Your task to perform on an android device: check the backup settings in the google photos Image 0: 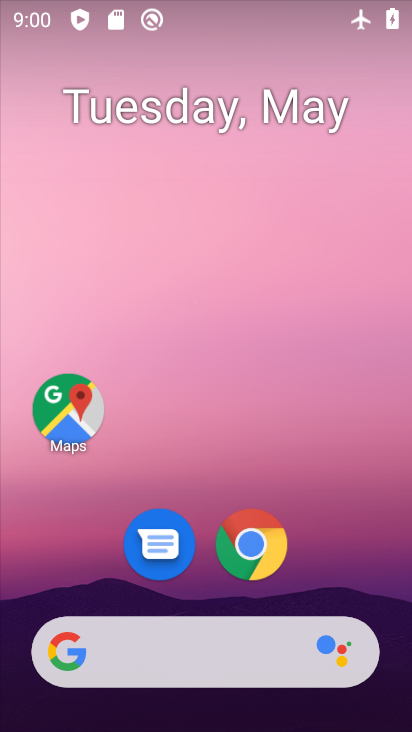
Step 0: drag from (350, 549) to (300, 85)
Your task to perform on an android device: check the backup settings in the google photos Image 1: 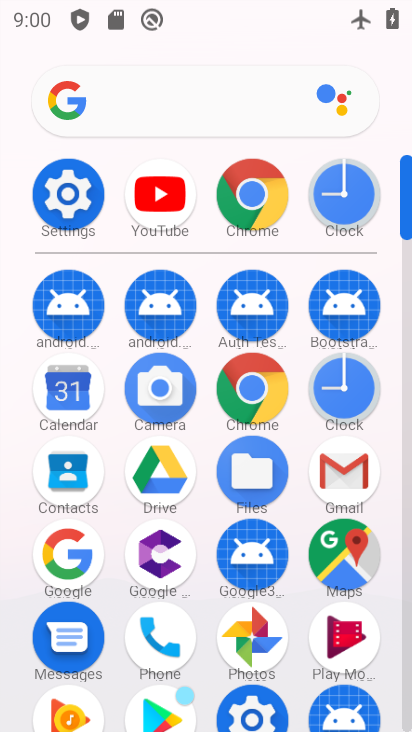
Step 1: click (266, 644)
Your task to perform on an android device: check the backup settings in the google photos Image 2: 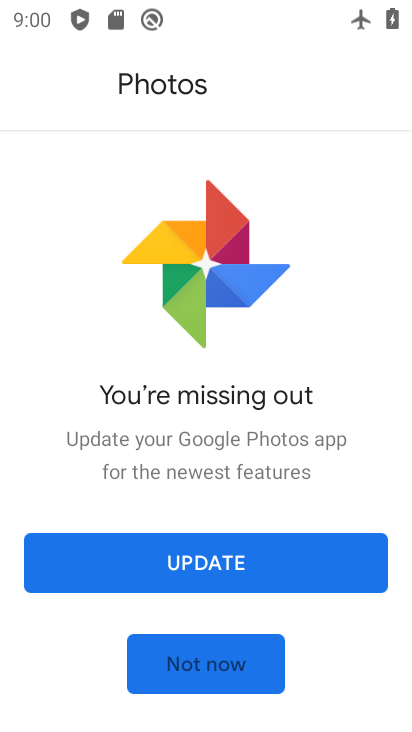
Step 2: click (263, 553)
Your task to perform on an android device: check the backup settings in the google photos Image 3: 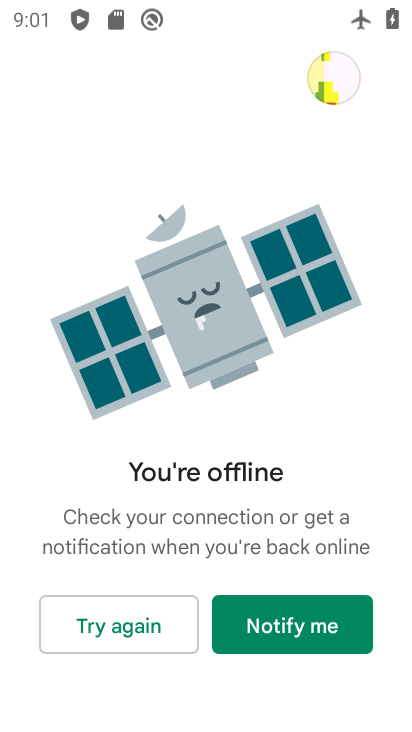
Step 3: press home button
Your task to perform on an android device: check the backup settings in the google photos Image 4: 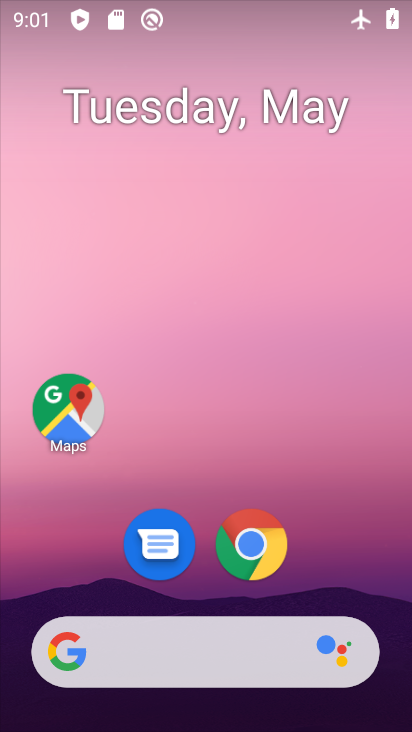
Step 4: drag from (326, 566) to (317, 134)
Your task to perform on an android device: check the backup settings in the google photos Image 5: 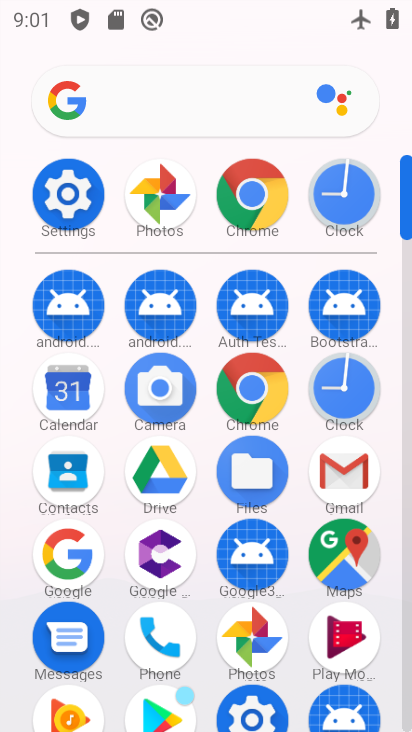
Step 5: click (253, 649)
Your task to perform on an android device: check the backup settings in the google photos Image 6: 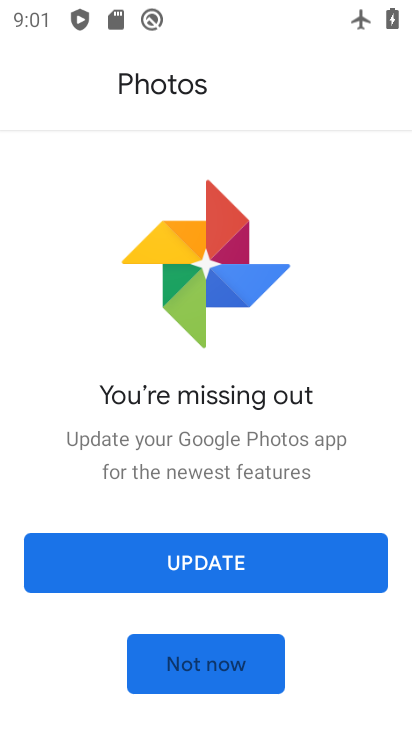
Step 6: click (214, 557)
Your task to perform on an android device: check the backup settings in the google photos Image 7: 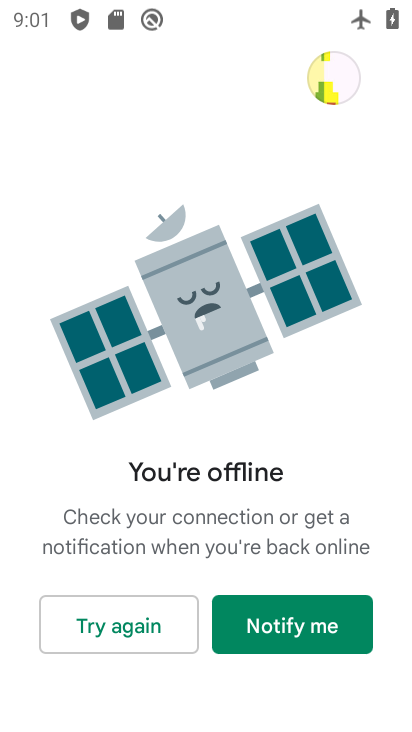
Step 7: task complete